Your task to perform on an android device: add a label to a message in the gmail app Image 0: 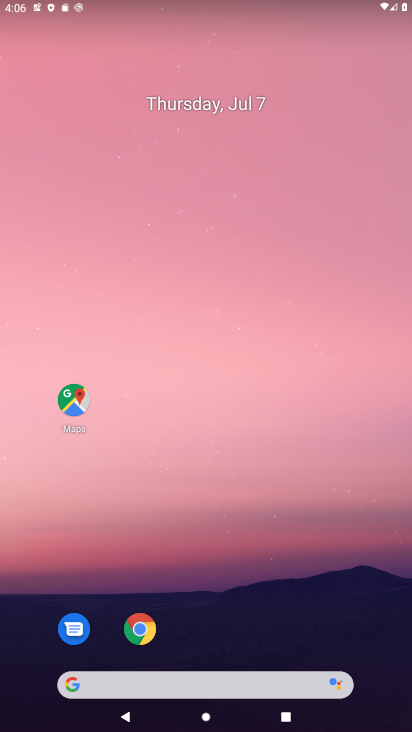
Step 0: click (223, 327)
Your task to perform on an android device: add a label to a message in the gmail app Image 1: 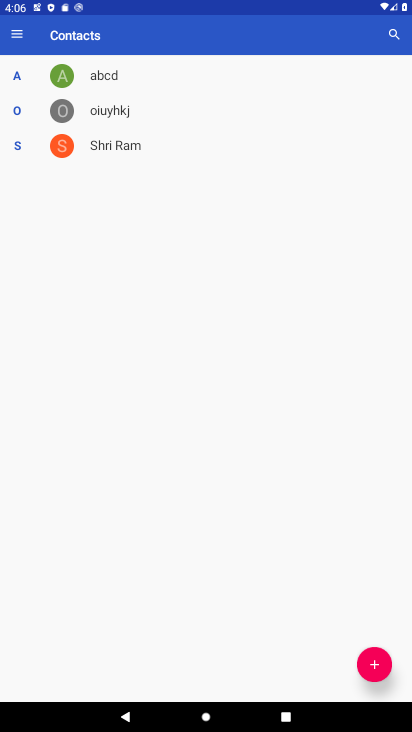
Step 1: press home button
Your task to perform on an android device: add a label to a message in the gmail app Image 2: 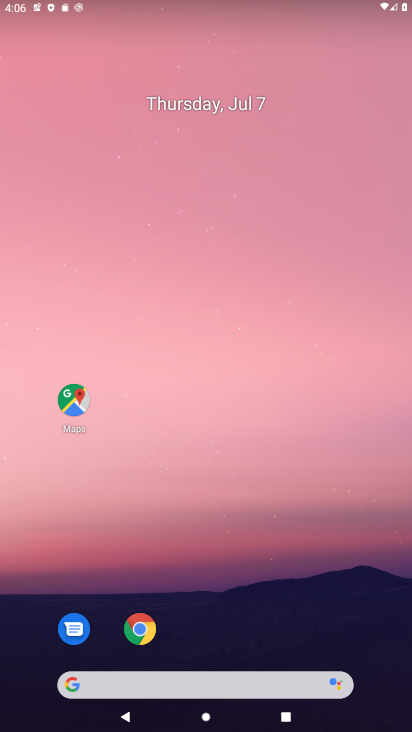
Step 2: drag from (235, 647) to (243, 216)
Your task to perform on an android device: add a label to a message in the gmail app Image 3: 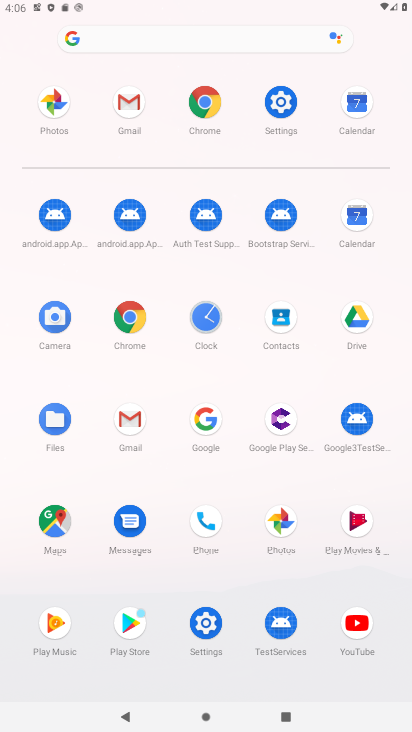
Step 3: click (138, 90)
Your task to perform on an android device: add a label to a message in the gmail app Image 4: 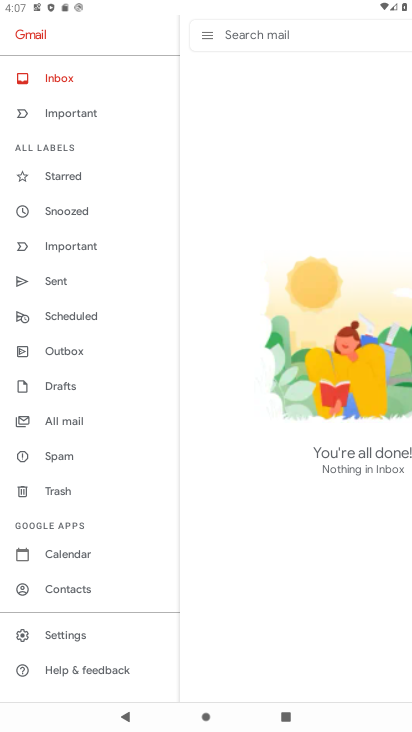
Step 4: task complete